Your task to perform on an android device: toggle notifications settings in the gmail app Image 0: 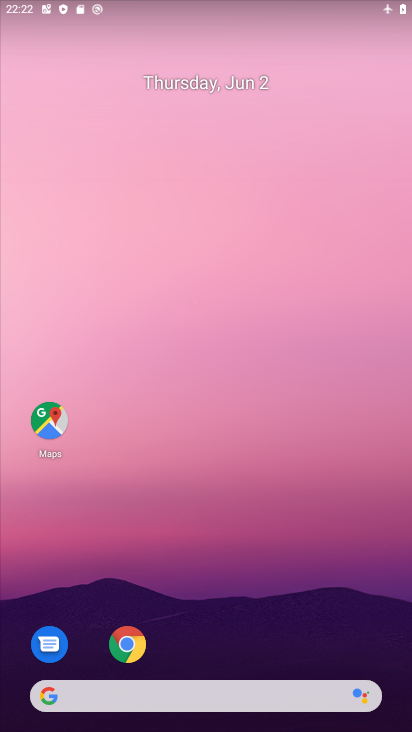
Step 0: click (43, 422)
Your task to perform on an android device: toggle notifications settings in the gmail app Image 1: 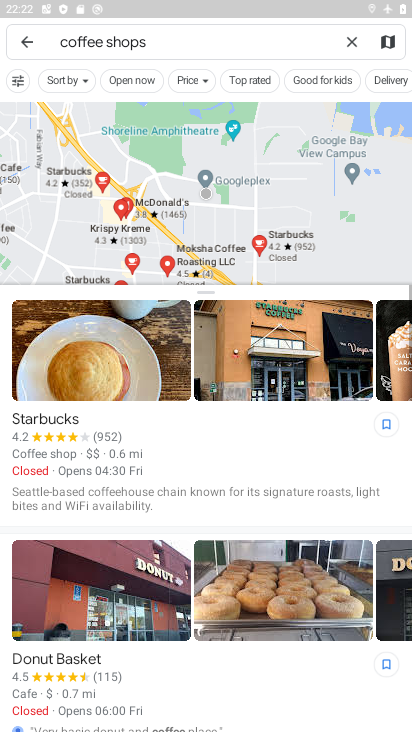
Step 1: press home button
Your task to perform on an android device: toggle notifications settings in the gmail app Image 2: 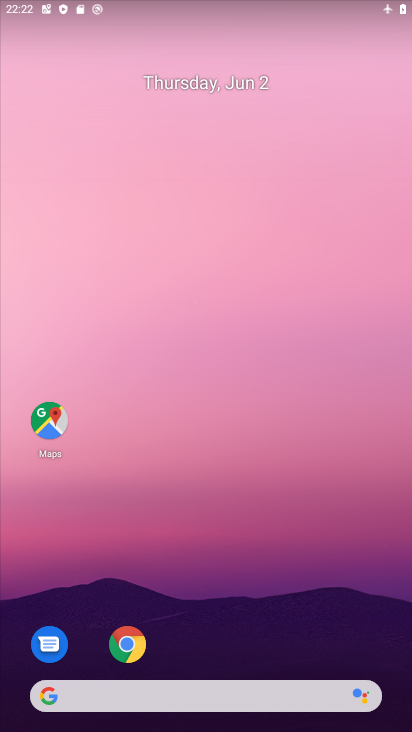
Step 2: drag from (205, 664) to (209, 251)
Your task to perform on an android device: toggle notifications settings in the gmail app Image 3: 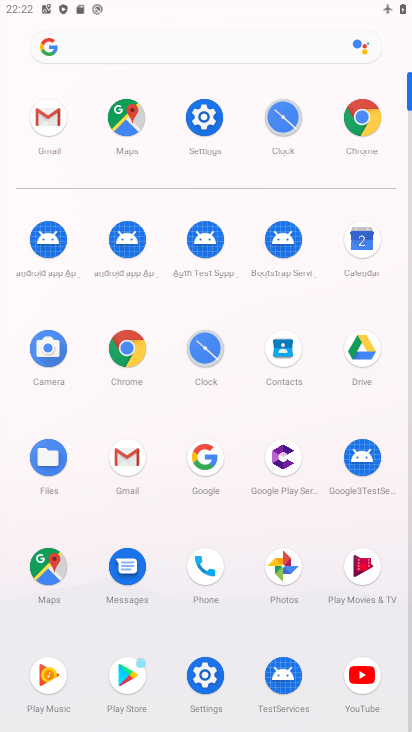
Step 3: click (48, 129)
Your task to perform on an android device: toggle notifications settings in the gmail app Image 4: 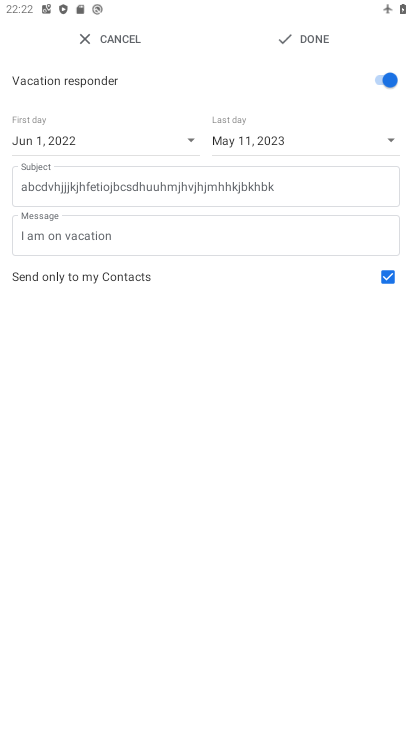
Step 4: press back button
Your task to perform on an android device: toggle notifications settings in the gmail app Image 5: 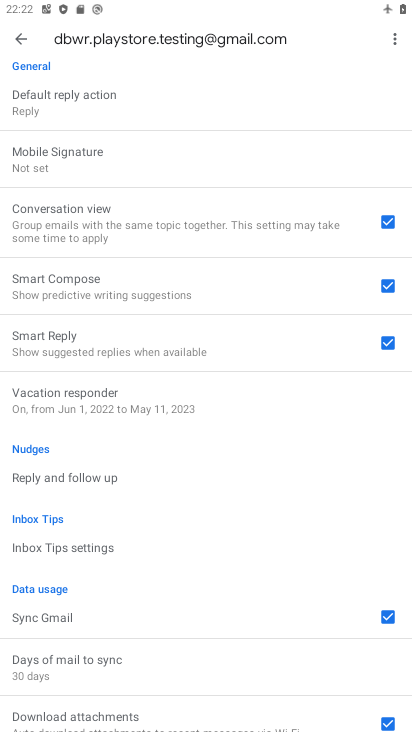
Step 5: drag from (144, 220) to (181, 560)
Your task to perform on an android device: toggle notifications settings in the gmail app Image 6: 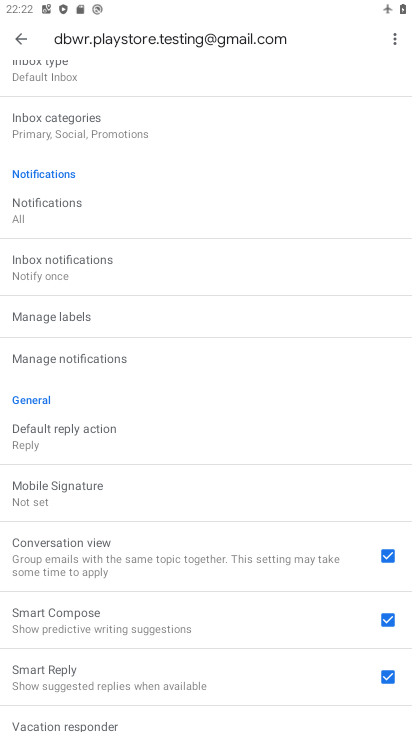
Step 6: drag from (132, 263) to (158, 530)
Your task to perform on an android device: toggle notifications settings in the gmail app Image 7: 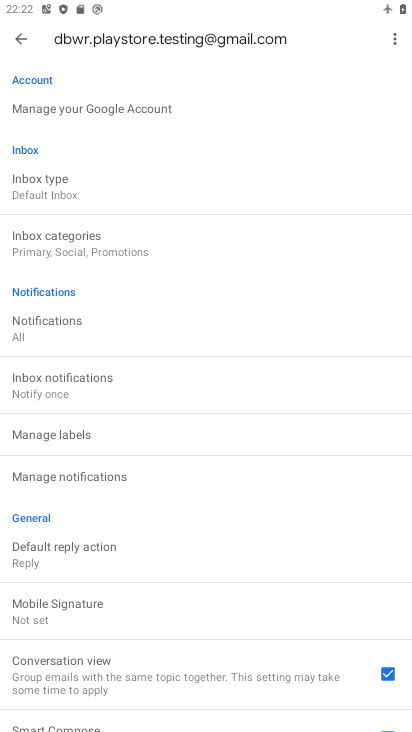
Step 7: click (74, 327)
Your task to perform on an android device: toggle notifications settings in the gmail app Image 8: 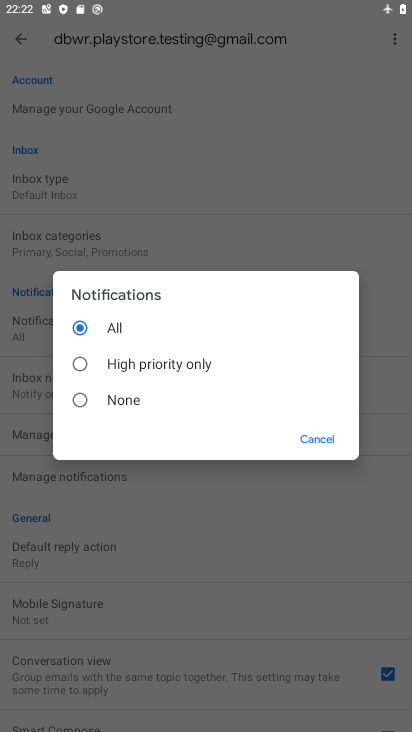
Step 8: click (83, 408)
Your task to perform on an android device: toggle notifications settings in the gmail app Image 9: 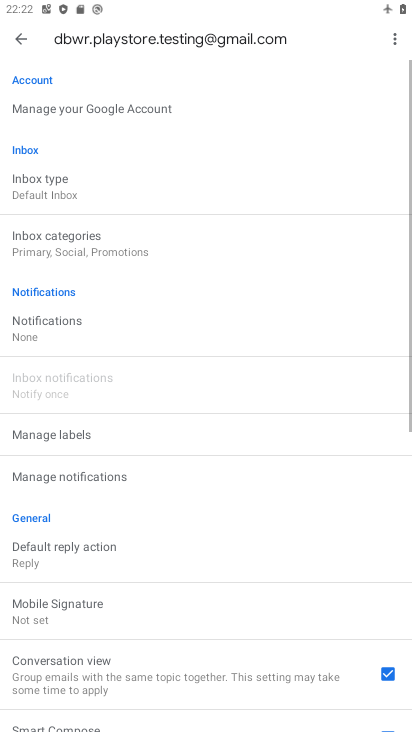
Step 9: task complete